Your task to perform on an android device: remove spam from my inbox in the gmail app Image 0: 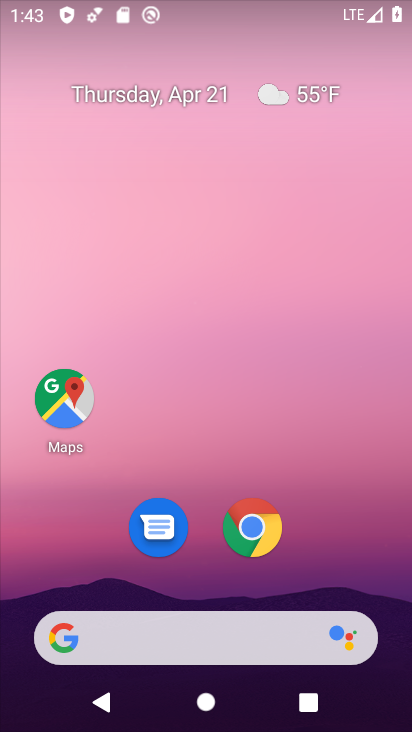
Step 0: drag from (350, 558) to (346, 67)
Your task to perform on an android device: remove spam from my inbox in the gmail app Image 1: 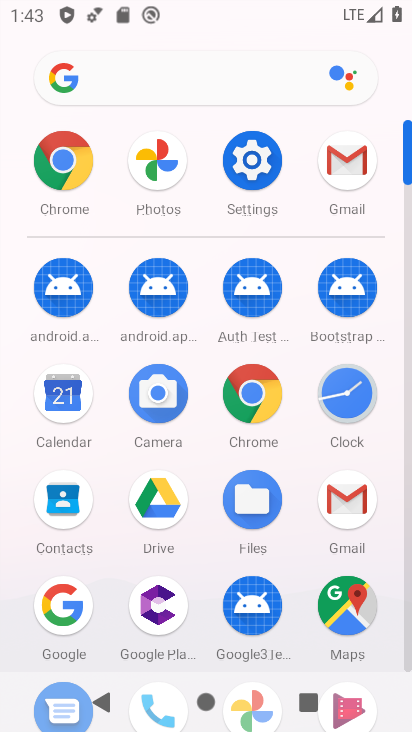
Step 1: click (353, 497)
Your task to perform on an android device: remove spam from my inbox in the gmail app Image 2: 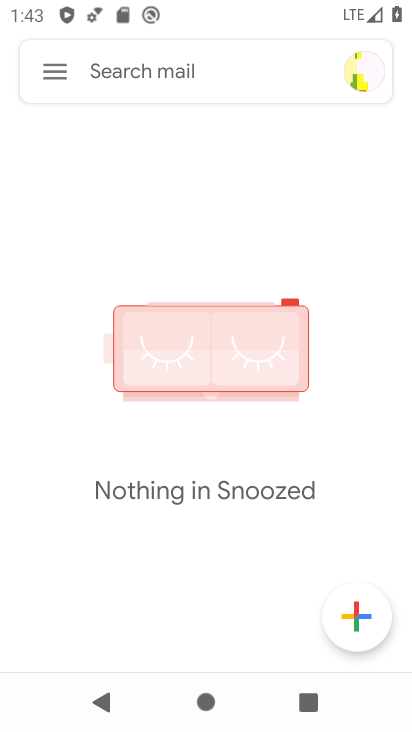
Step 2: click (57, 74)
Your task to perform on an android device: remove spam from my inbox in the gmail app Image 3: 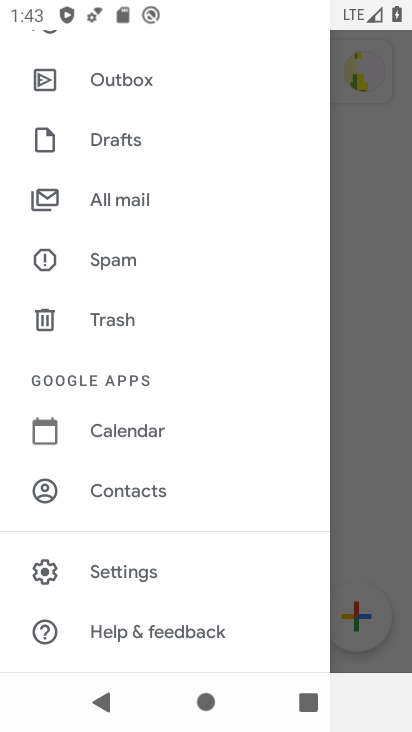
Step 3: drag from (250, 350) to (261, 457)
Your task to perform on an android device: remove spam from my inbox in the gmail app Image 4: 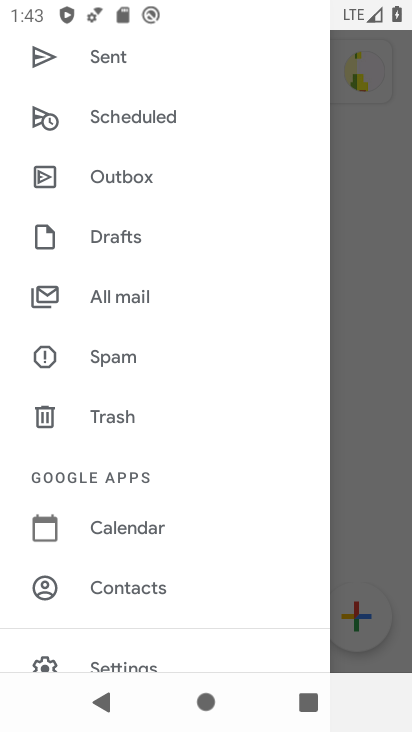
Step 4: drag from (262, 318) to (260, 441)
Your task to perform on an android device: remove spam from my inbox in the gmail app Image 5: 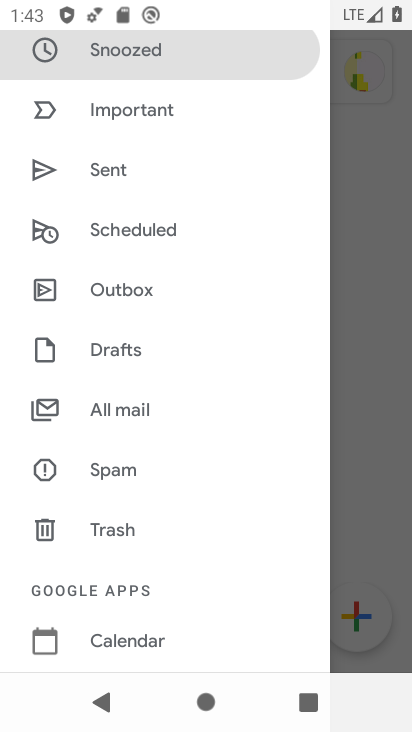
Step 5: drag from (268, 288) to (269, 443)
Your task to perform on an android device: remove spam from my inbox in the gmail app Image 6: 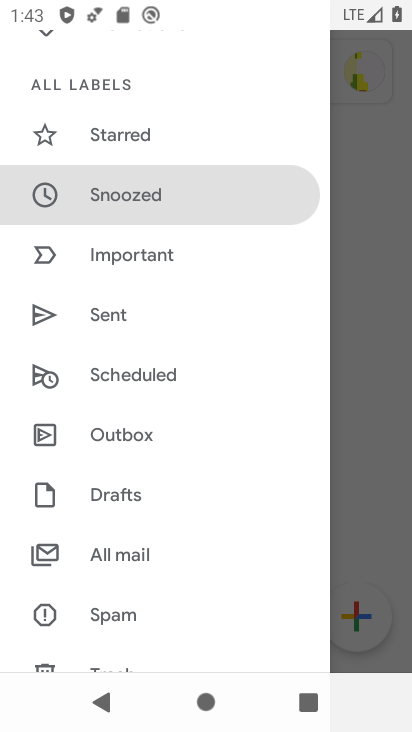
Step 6: drag from (262, 320) to (281, 502)
Your task to perform on an android device: remove spam from my inbox in the gmail app Image 7: 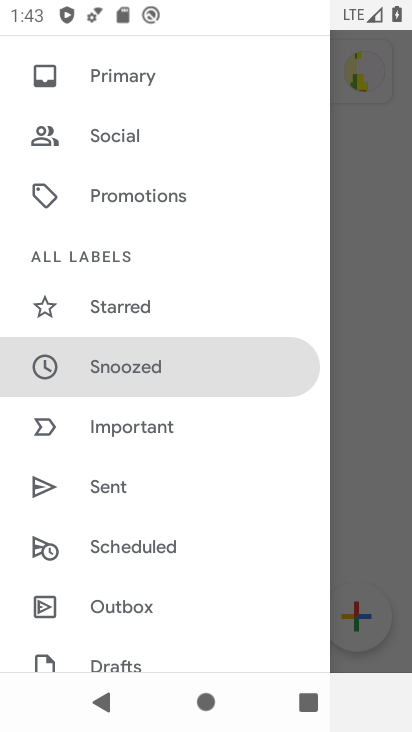
Step 7: drag from (262, 544) to (257, 404)
Your task to perform on an android device: remove spam from my inbox in the gmail app Image 8: 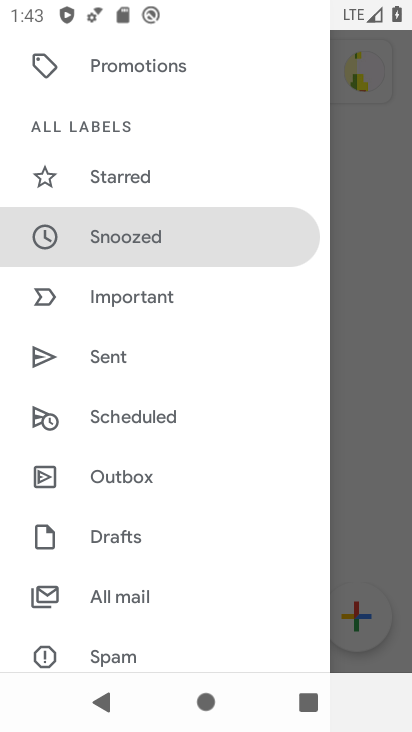
Step 8: drag from (258, 530) to (259, 395)
Your task to perform on an android device: remove spam from my inbox in the gmail app Image 9: 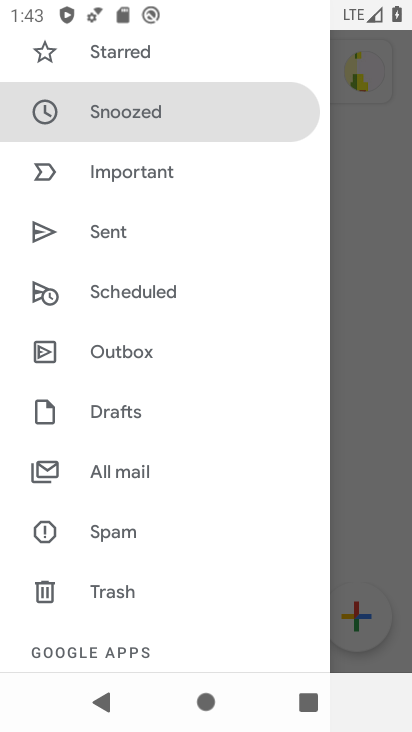
Step 9: drag from (217, 552) to (228, 385)
Your task to perform on an android device: remove spam from my inbox in the gmail app Image 10: 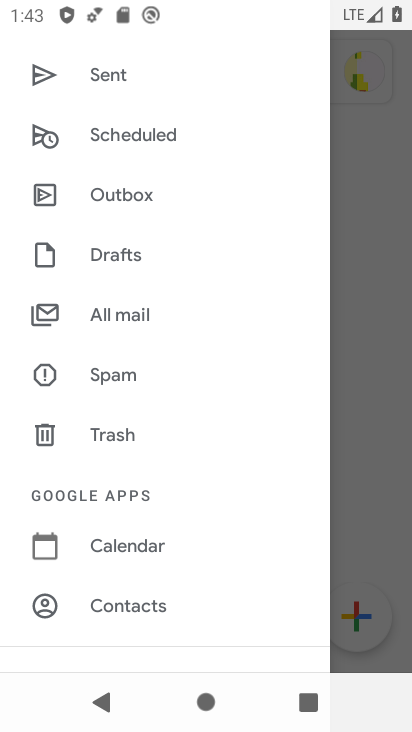
Step 10: click (112, 385)
Your task to perform on an android device: remove spam from my inbox in the gmail app Image 11: 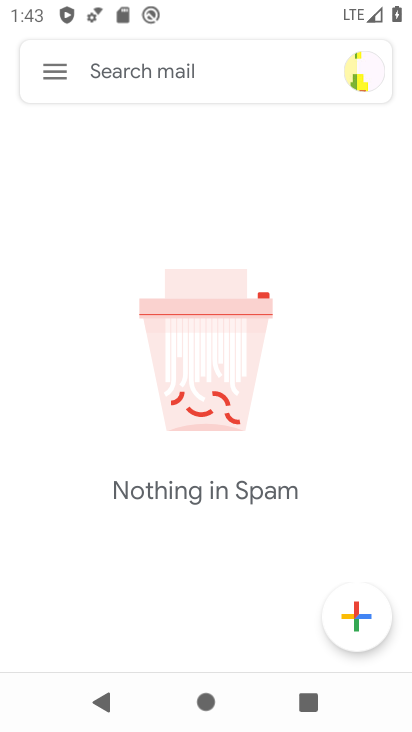
Step 11: task complete